Your task to perform on an android device: toggle pop-ups in chrome Image 0: 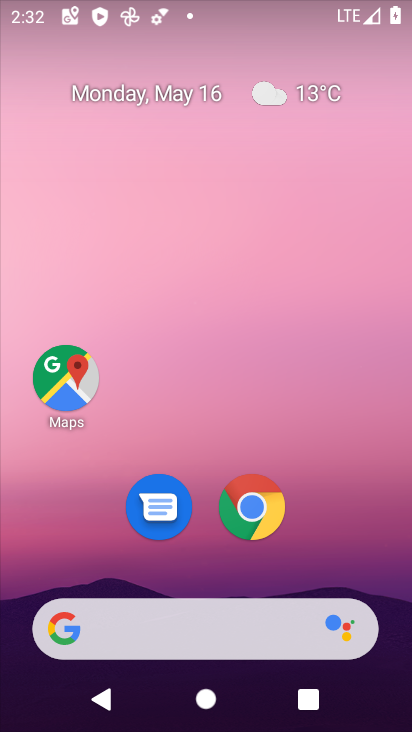
Step 0: click (261, 515)
Your task to perform on an android device: toggle pop-ups in chrome Image 1: 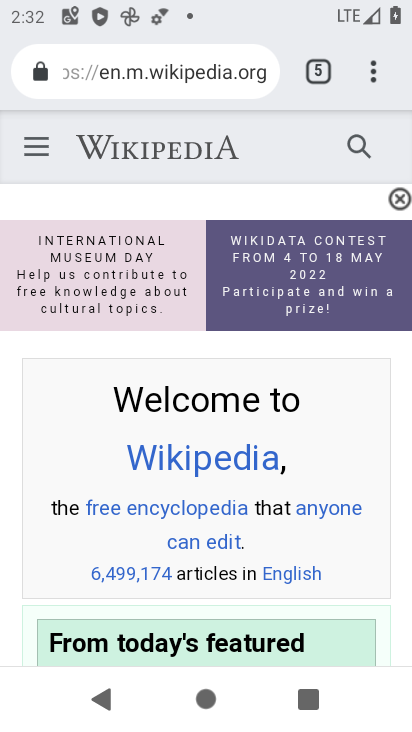
Step 1: click (368, 70)
Your task to perform on an android device: toggle pop-ups in chrome Image 2: 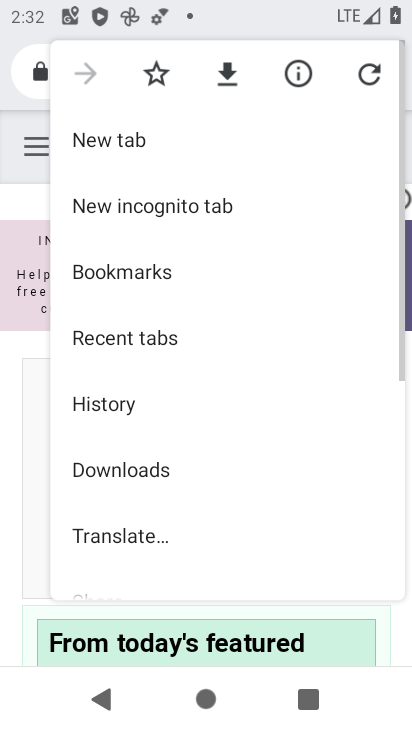
Step 2: drag from (215, 496) to (133, 76)
Your task to perform on an android device: toggle pop-ups in chrome Image 3: 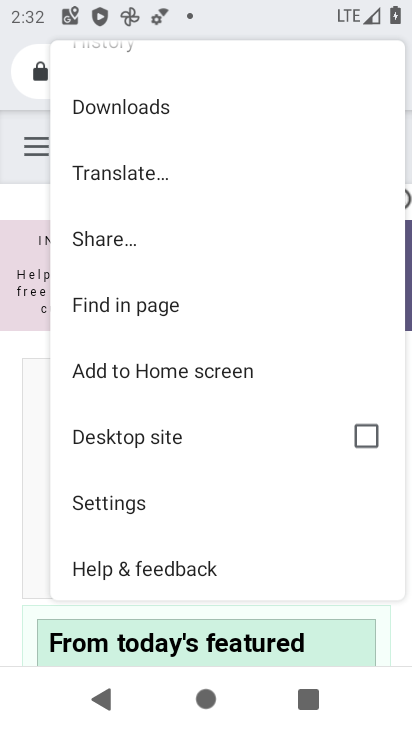
Step 3: click (192, 482)
Your task to perform on an android device: toggle pop-ups in chrome Image 4: 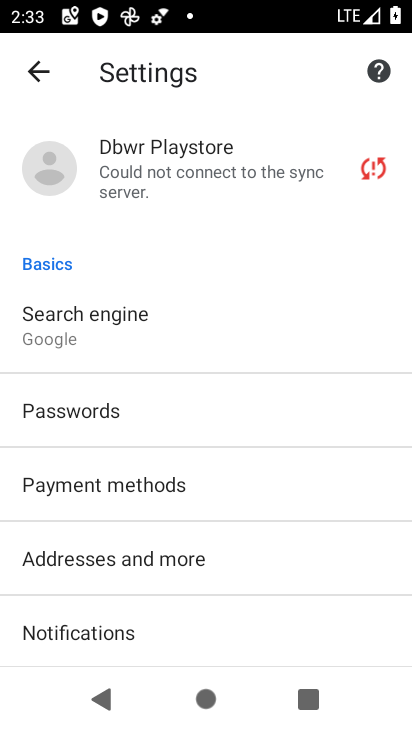
Step 4: drag from (285, 558) to (230, 50)
Your task to perform on an android device: toggle pop-ups in chrome Image 5: 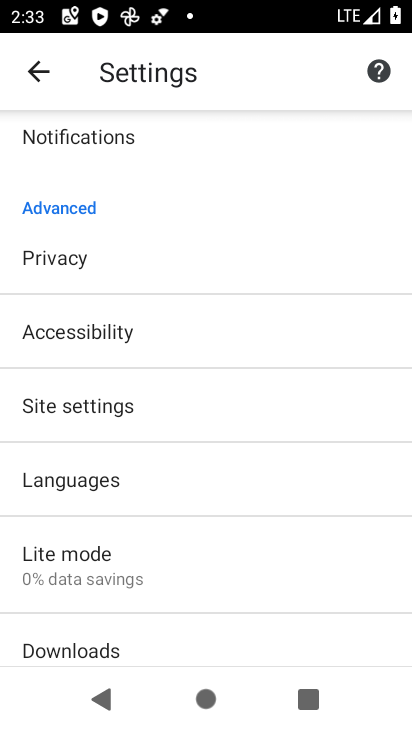
Step 5: drag from (190, 423) to (178, 240)
Your task to perform on an android device: toggle pop-ups in chrome Image 6: 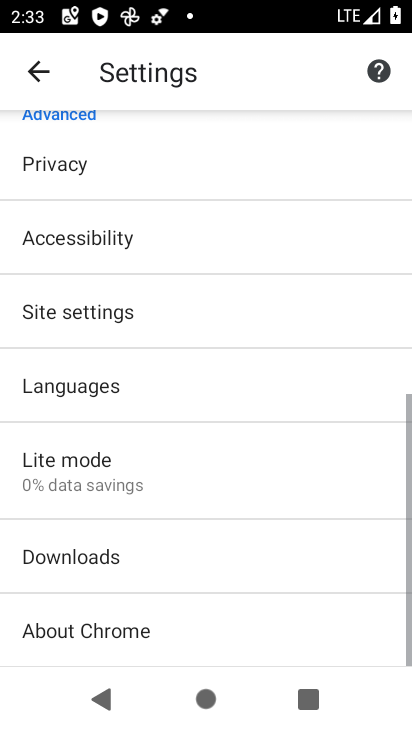
Step 6: click (137, 311)
Your task to perform on an android device: toggle pop-ups in chrome Image 7: 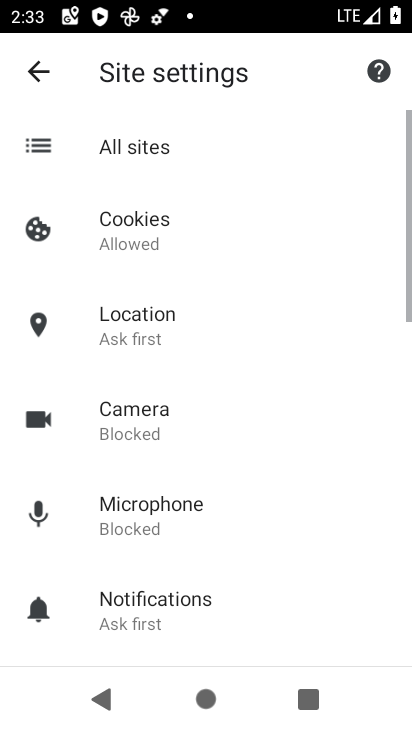
Step 7: drag from (207, 544) to (189, 212)
Your task to perform on an android device: toggle pop-ups in chrome Image 8: 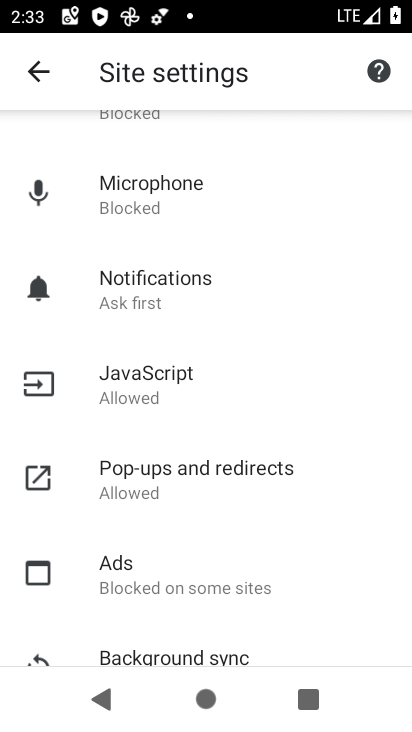
Step 8: click (177, 452)
Your task to perform on an android device: toggle pop-ups in chrome Image 9: 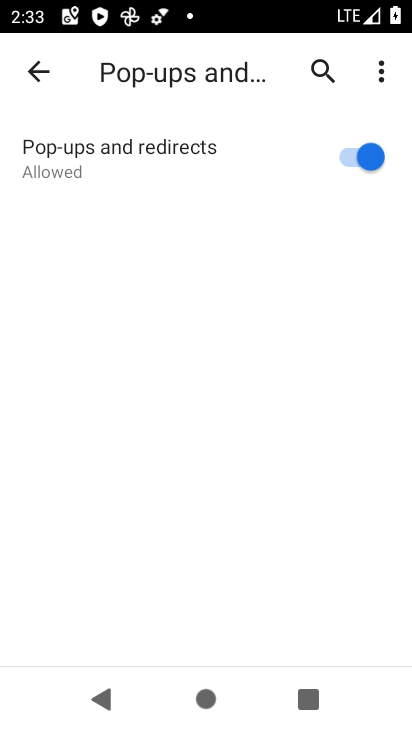
Step 9: click (359, 155)
Your task to perform on an android device: toggle pop-ups in chrome Image 10: 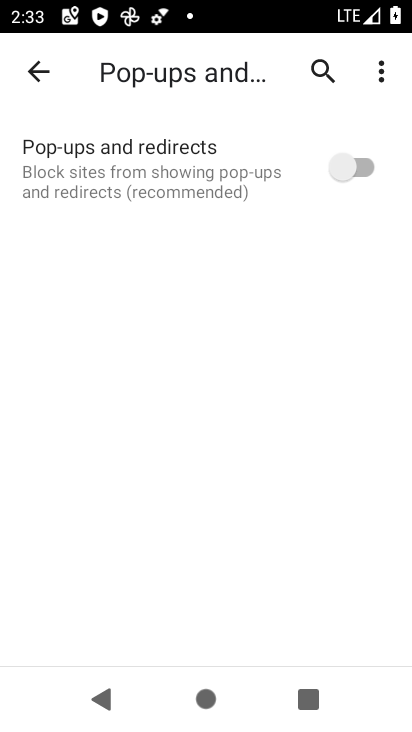
Step 10: task complete